Your task to perform on an android device: toggle wifi Image 0: 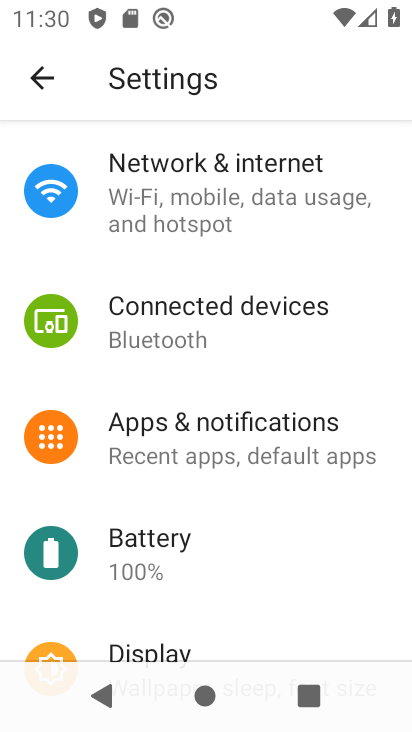
Step 0: drag from (111, 13) to (131, 578)
Your task to perform on an android device: toggle wifi Image 1: 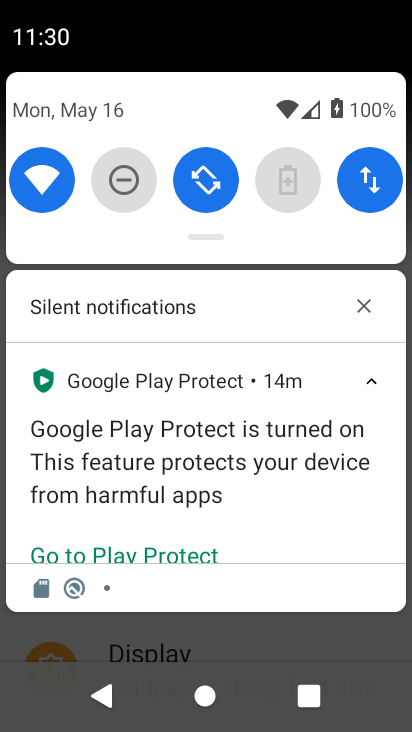
Step 1: click (46, 174)
Your task to perform on an android device: toggle wifi Image 2: 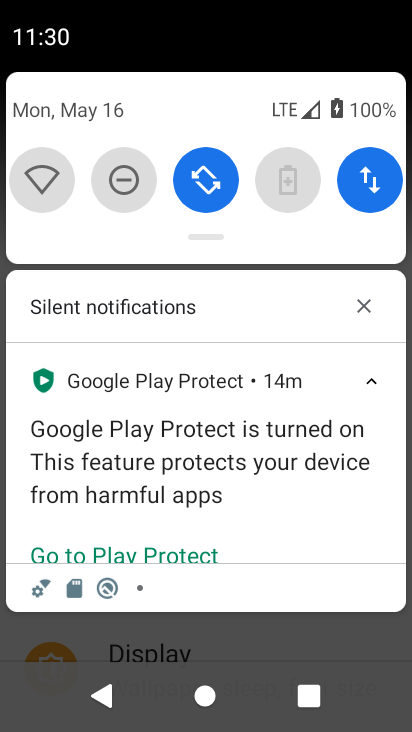
Step 2: task complete